Your task to perform on an android device: turn off smart reply in the gmail app Image 0: 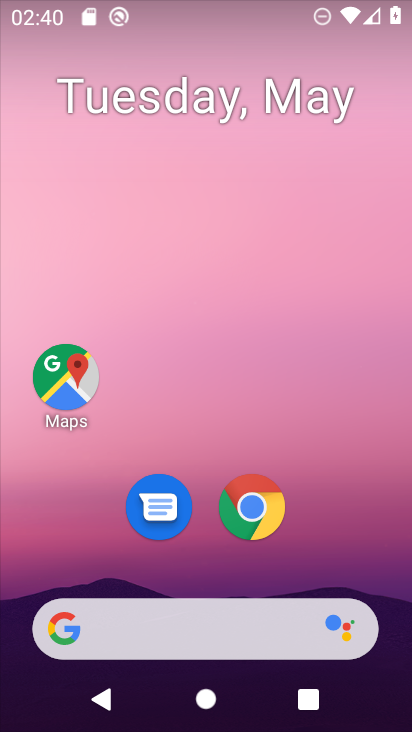
Step 0: drag from (200, 560) to (203, 193)
Your task to perform on an android device: turn off smart reply in the gmail app Image 1: 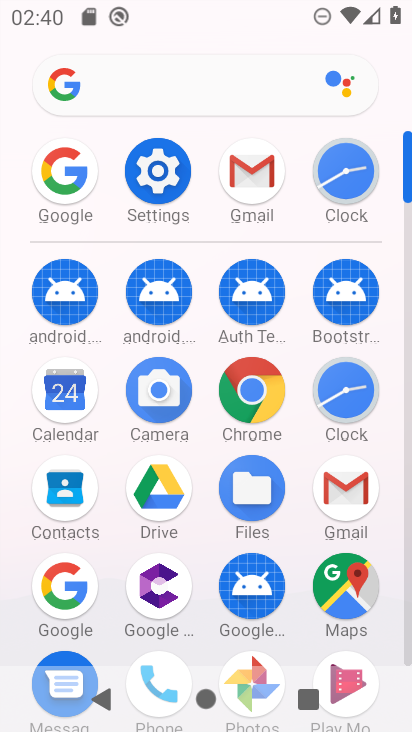
Step 1: click (237, 208)
Your task to perform on an android device: turn off smart reply in the gmail app Image 2: 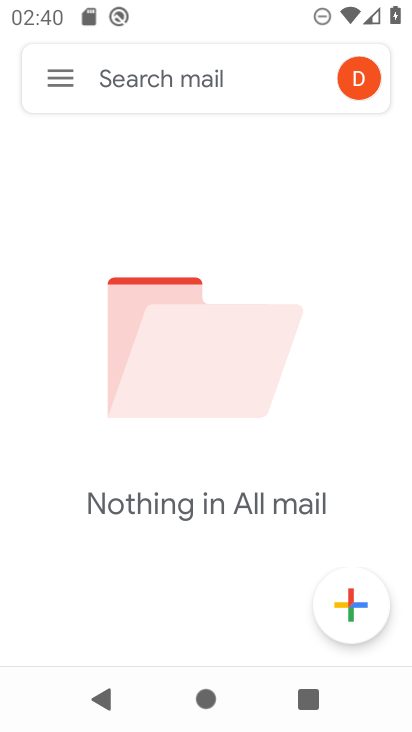
Step 2: click (67, 93)
Your task to perform on an android device: turn off smart reply in the gmail app Image 3: 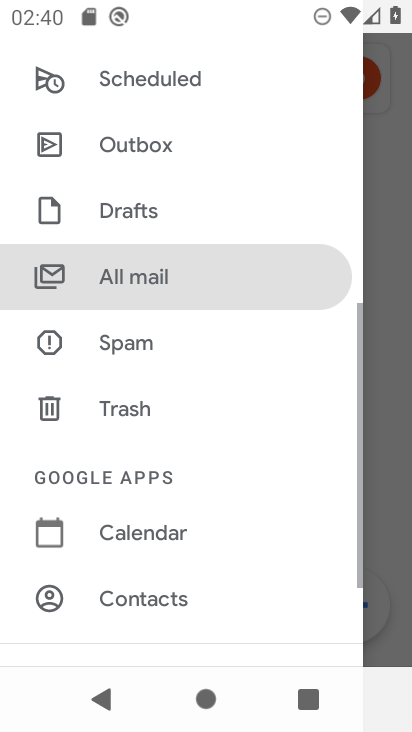
Step 3: drag from (223, 553) to (193, 235)
Your task to perform on an android device: turn off smart reply in the gmail app Image 4: 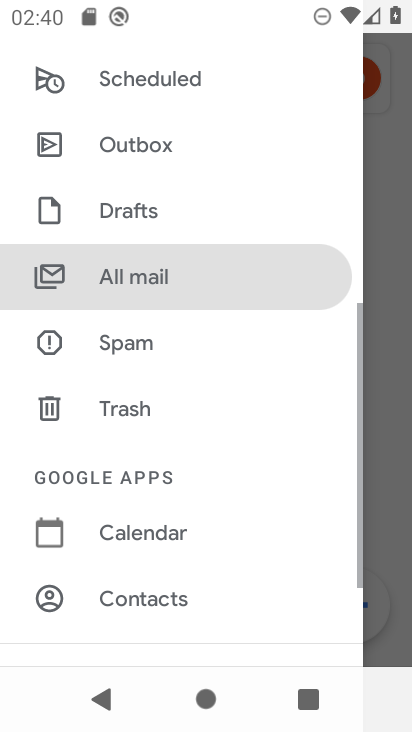
Step 4: drag from (207, 519) to (202, 230)
Your task to perform on an android device: turn off smart reply in the gmail app Image 5: 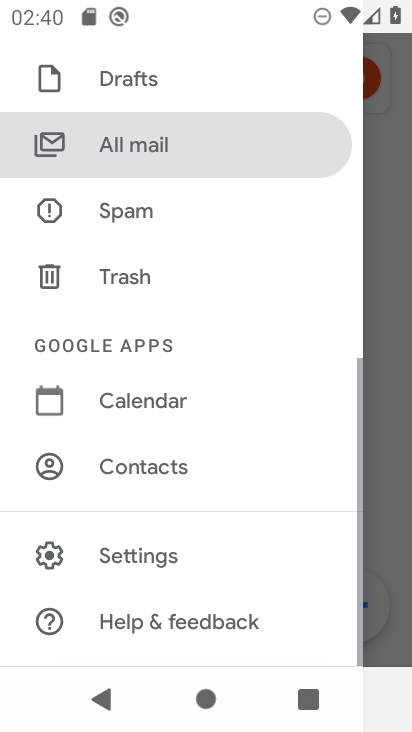
Step 5: click (155, 539)
Your task to perform on an android device: turn off smart reply in the gmail app Image 6: 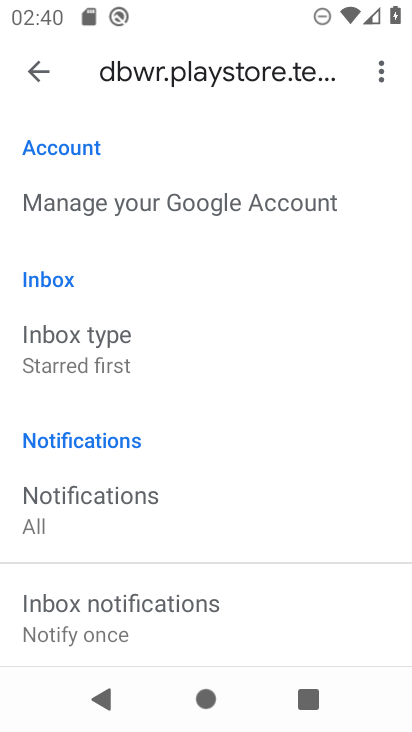
Step 6: task complete